Your task to perform on an android device: turn on improve location accuracy Image 0: 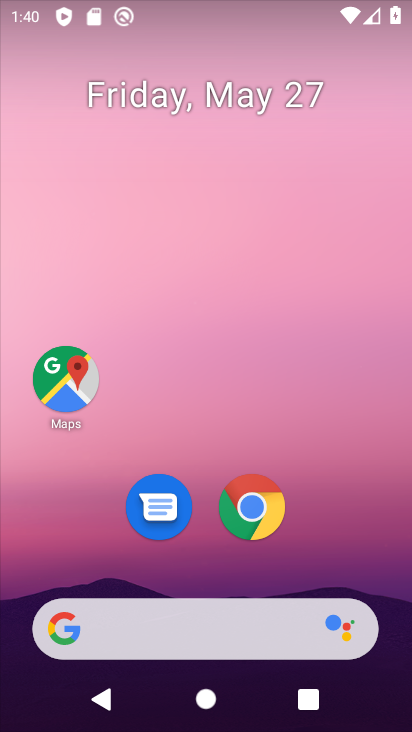
Step 0: drag from (224, 520) to (312, 12)
Your task to perform on an android device: turn on improve location accuracy Image 1: 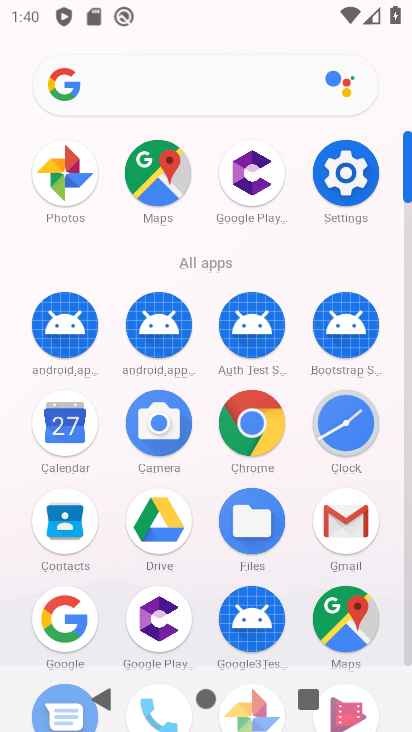
Step 1: click (347, 175)
Your task to perform on an android device: turn on improve location accuracy Image 2: 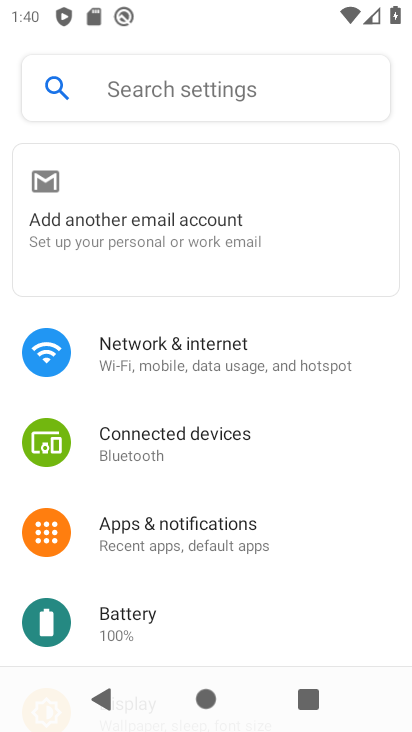
Step 2: drag from (171, 544) to (289, 8)
Your task to perform on an android device: turn on improve location accuracy Image 3: 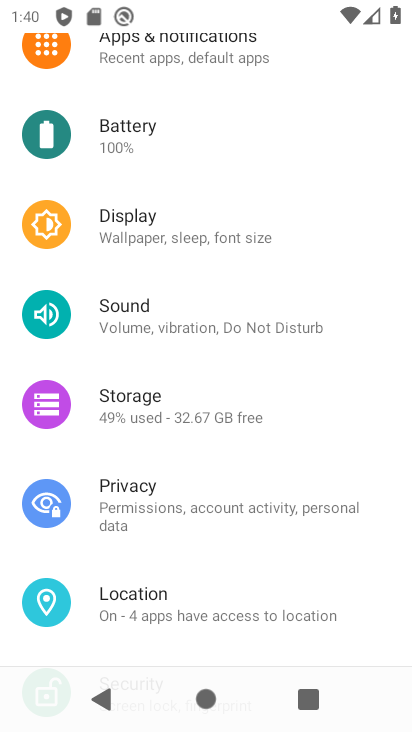
Step 3: drag from (187, 465) to (234, 238)
Your task to perform on an android device: turn on improve location accuracy Image 4: 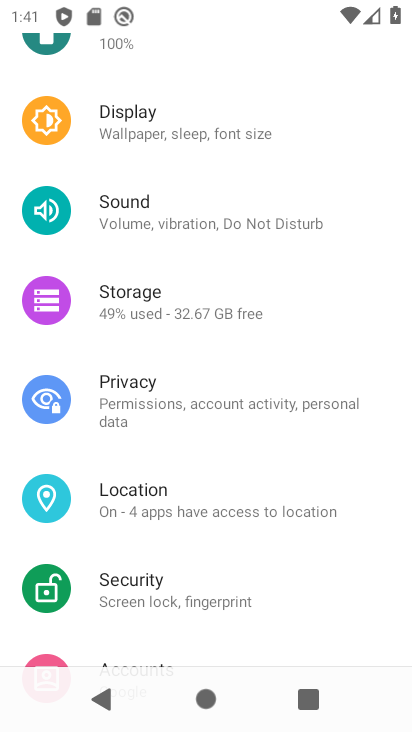
Step 4: click (178, 521)
Your task to perform on an android device: turn on improve location accuracy Image 5: 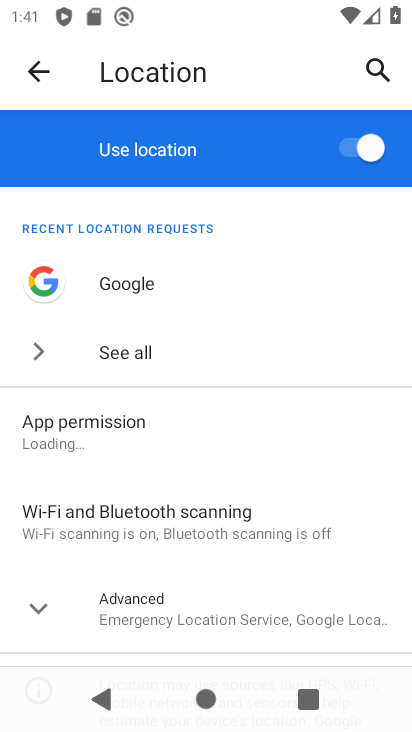
Step 5: click (127, 601)
Your task to perform on an android device: turn on improve location accuracy Image 6: 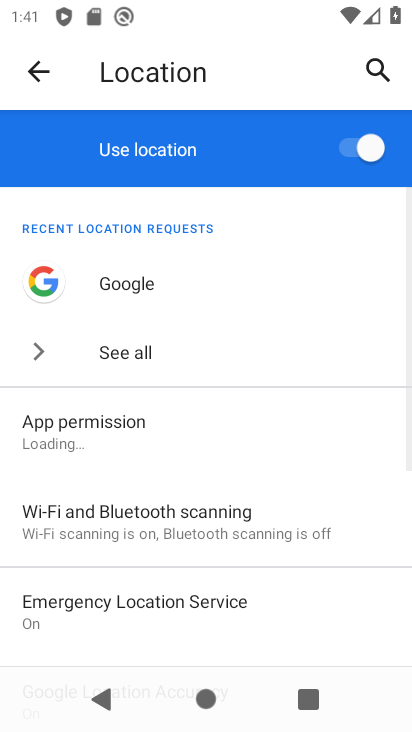
Step 6: drag from (226, 615) to (283, 215)
Your task to perform on an android device: turn on improve location accuracy Image 7: 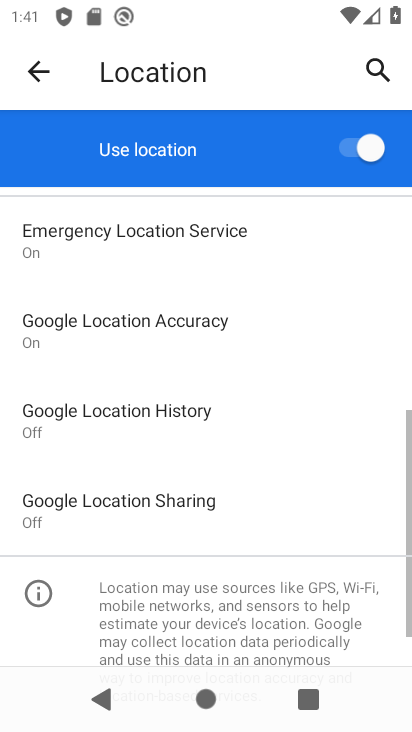
Step 7: click (156, 346)
Your task to perform on an android device: turn on improve location accuracy Image 8: 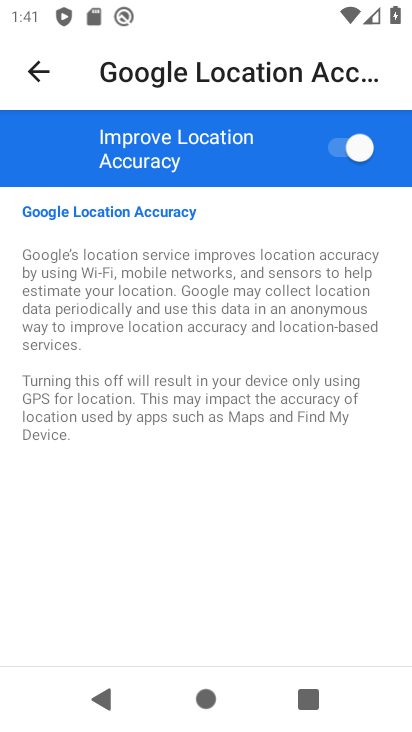
Step 8: task complete